Your task to perform on an android device: Go to Google maps Image 0: 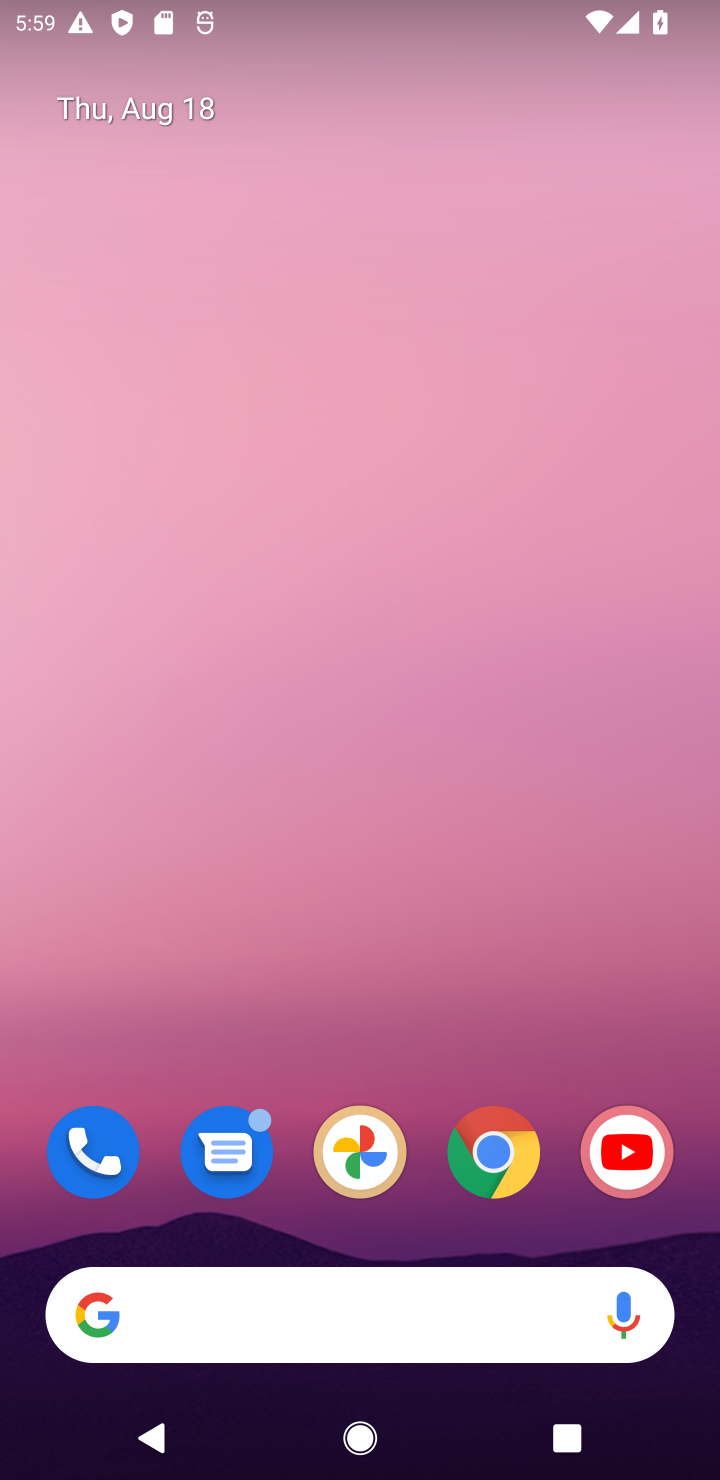
Step 0: drag from (462, 813) to (535, 25)
Your task to perform on an android device: Go to Google maps Image 1: 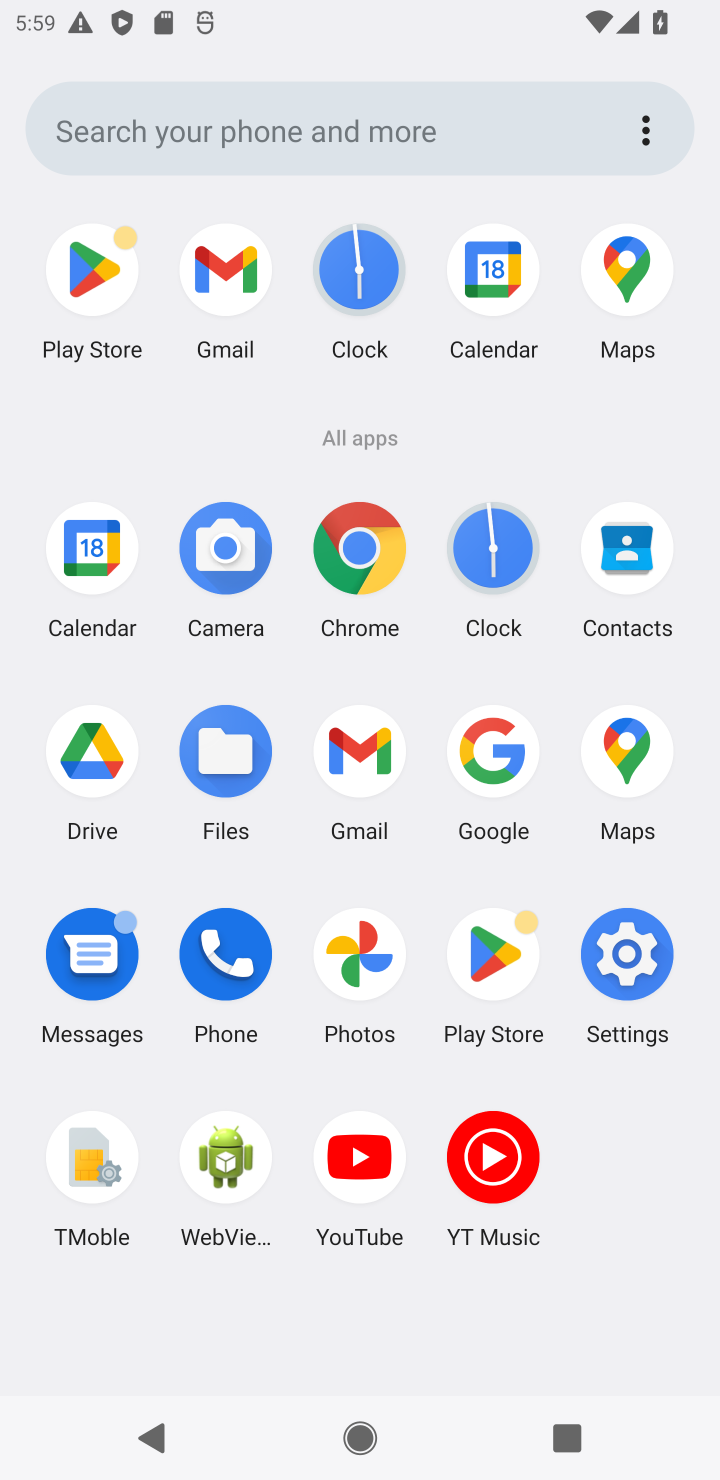
Step 1: click (621, 752)
Your task to perform on an android device: Go to Google maps Image 2: 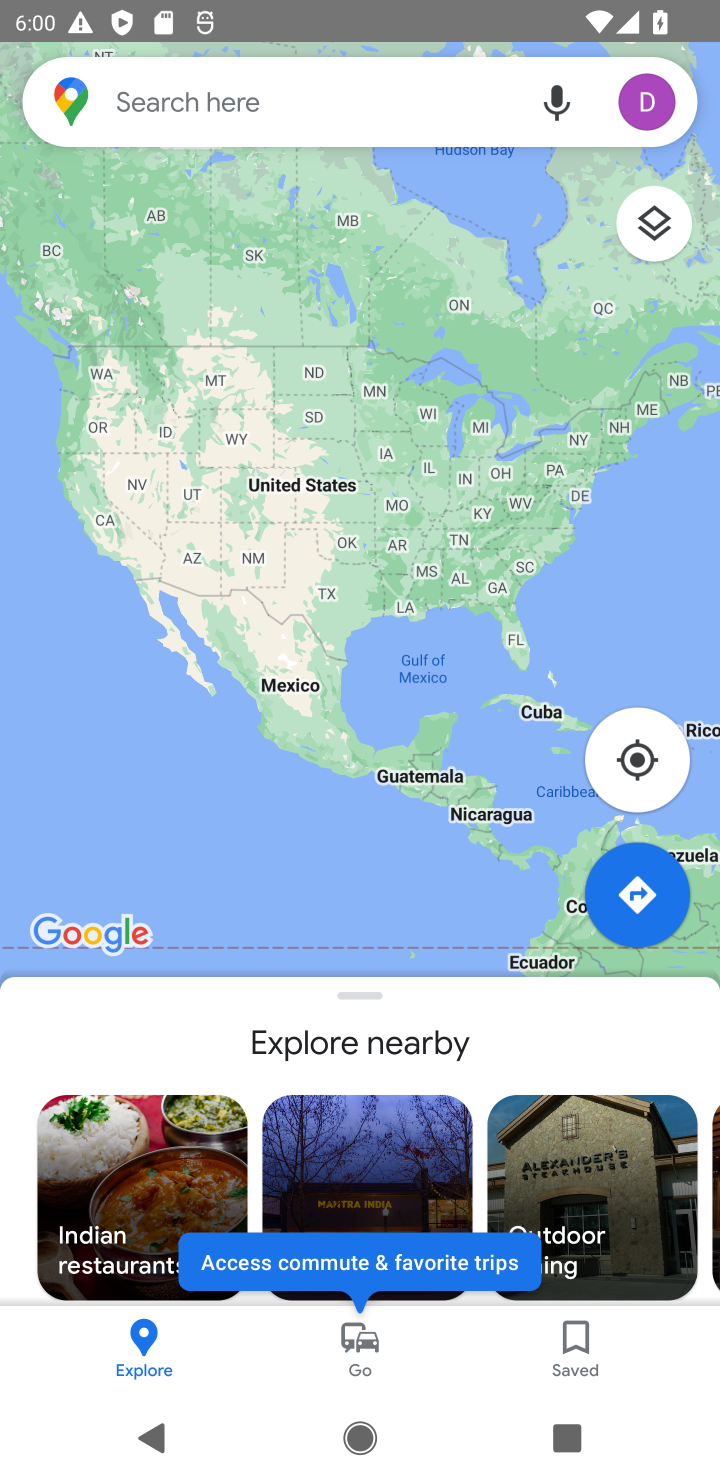
Step 2: task complete